Your task to perform on an android device: change notification settings in the gmail app Image 0: 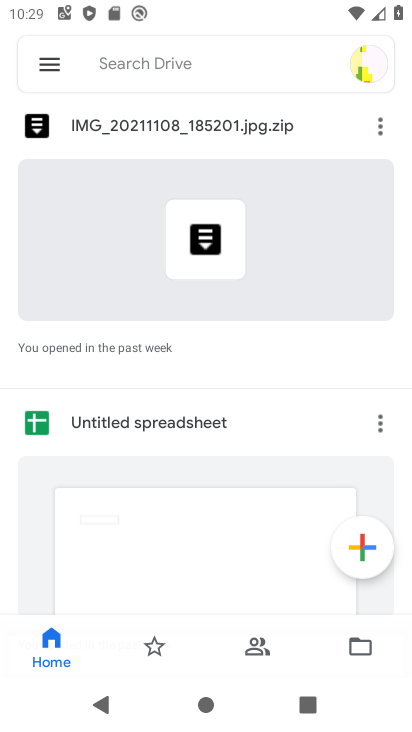
Step 0: press home button
Your task to perform on an android device: change notification settings in the gmail app Image 1: 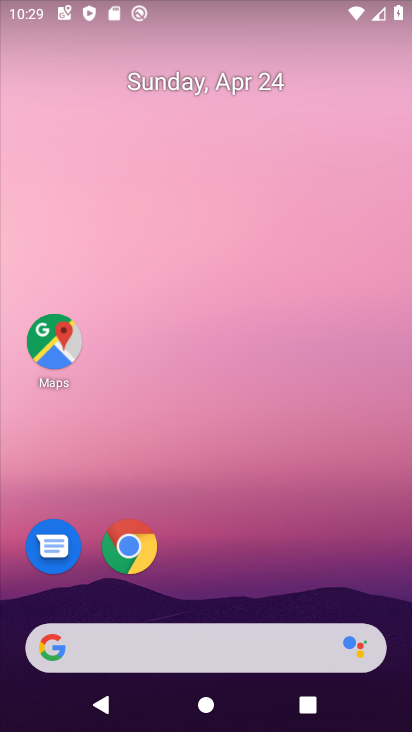
Step 1: drag from (301, 561) to (266, 16)
Your task to perform on an android device: change notification settings in the gmail app Image 2: 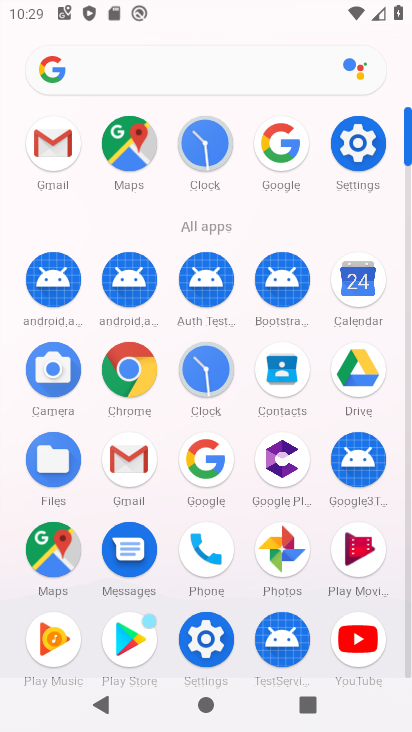
Step 2: click (50, 153)
Your task to perform on an android device: change notification settings in the gmail app Image 3: 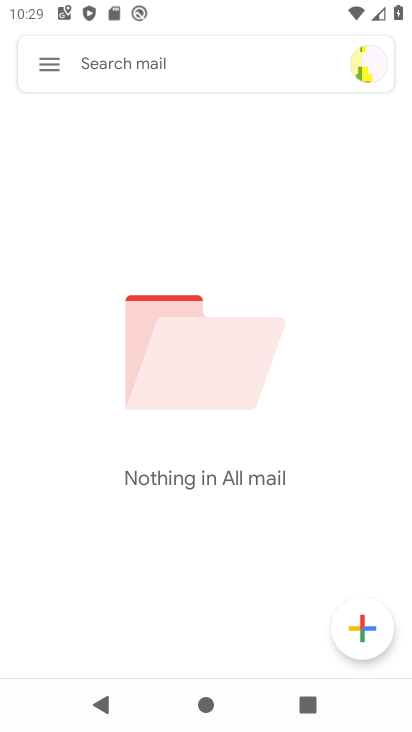
Step 3: click (38, 67)
Your task to perform on an android device: change notification settings in the gmail app Image 4: 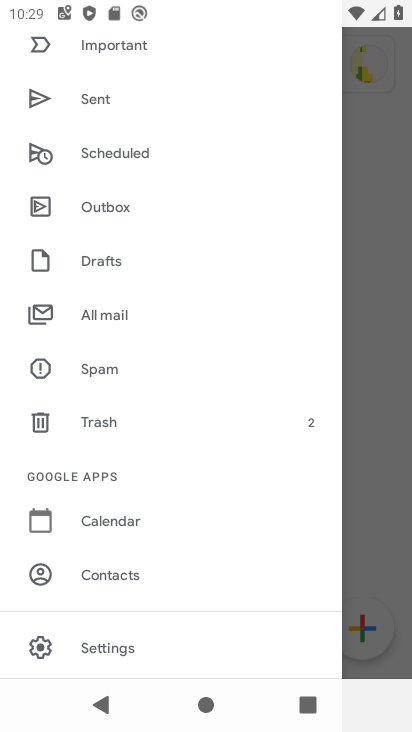
Step 4: click (115, 653)
Your task to perform on an android device: change notification settings in the gmail app Image 5: 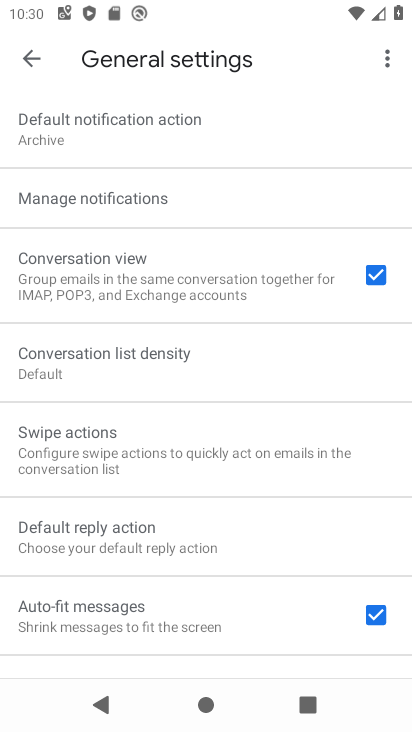
Step 5: click (95, 209)
Your task to perform on an android device: change notification settings in the gmail app Image 6: 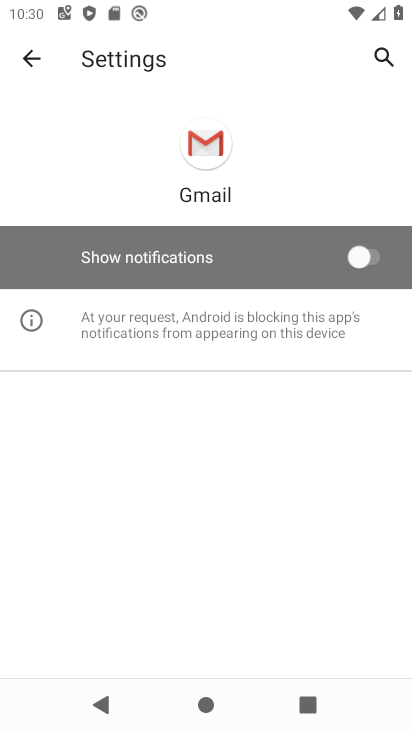
Step 6: click (358, 259)
Your task to perform on an android device: change notification settings in the gmail app Image 7: 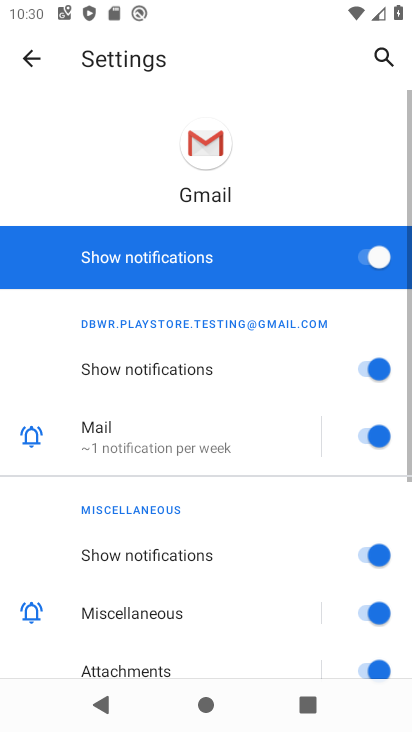
Step 7: task complete